Your task to perform on an android device: turn off airplane mode Image 0: 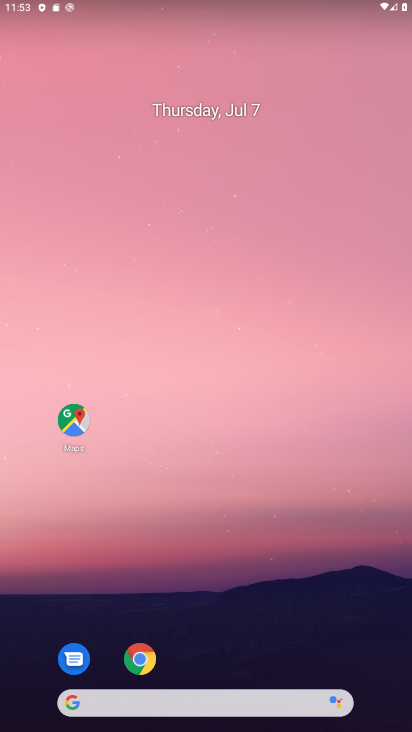
Step 0: drag from (258, 604) to (183, 35)
Your task to perform on an android device: turn off airplane mode Image 1: 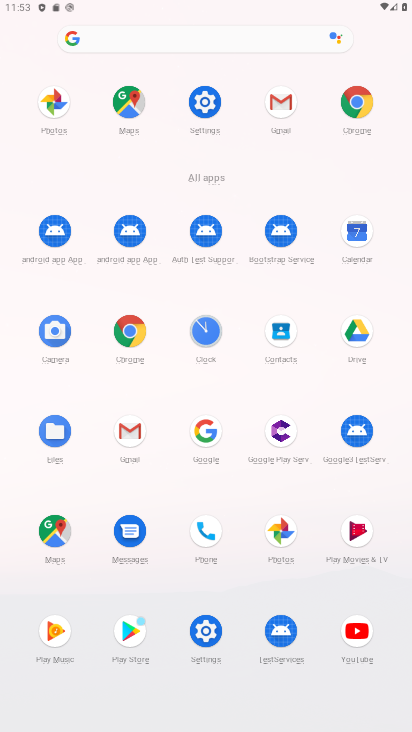
Step 1: click (203, 100)
Your task to perform on an android device: turn off airplane mode Image 2: 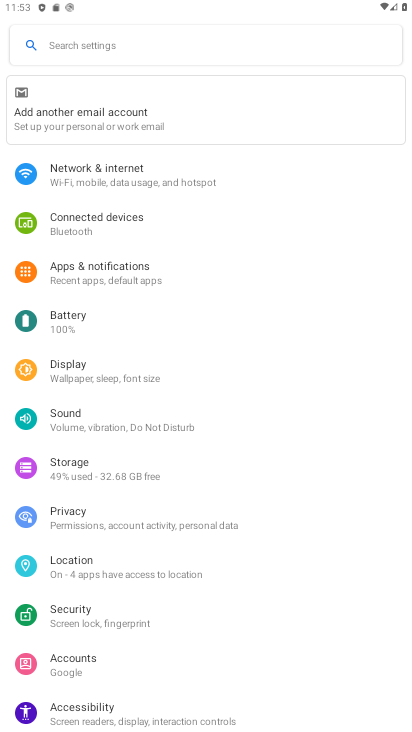
Step 2: click (96, 170)
Your task to perform on an android device: turn off airplane mode Image 3: 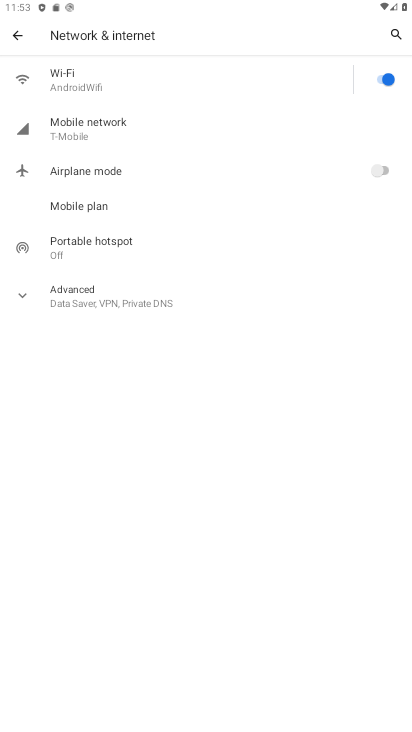
Step 3: task complete